Your task to perform on an android device: turn off picture-in-picture Image 0: 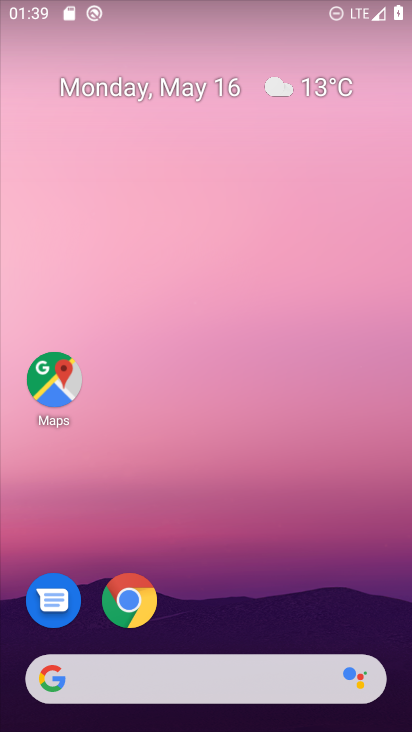
Step 0: press home button
Your task to perform on an android device: turn off picture-in-picture Image 1: 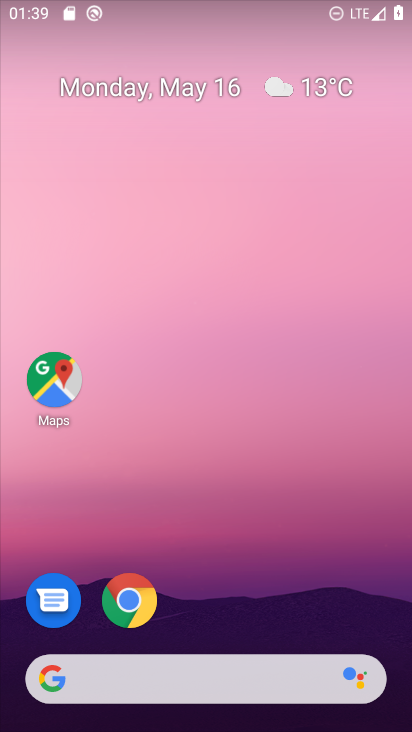
Step 1: click (127, 603)
Your task to perform on an android device: turn off picture-in-picture Image 2: 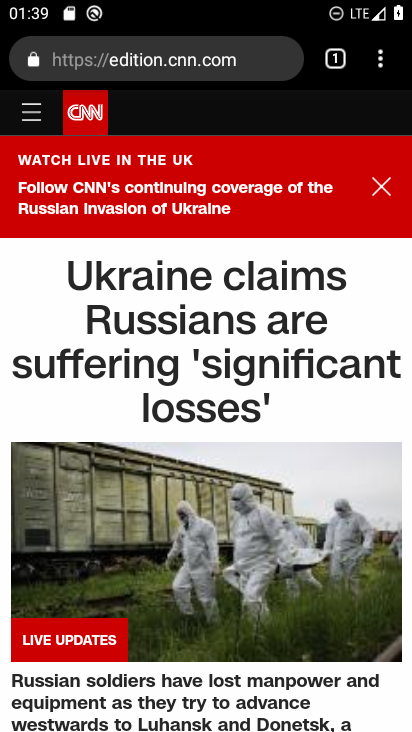
Step 2: press home button
Your task to perform on an android device: turn off picture-in-picture Image 3: 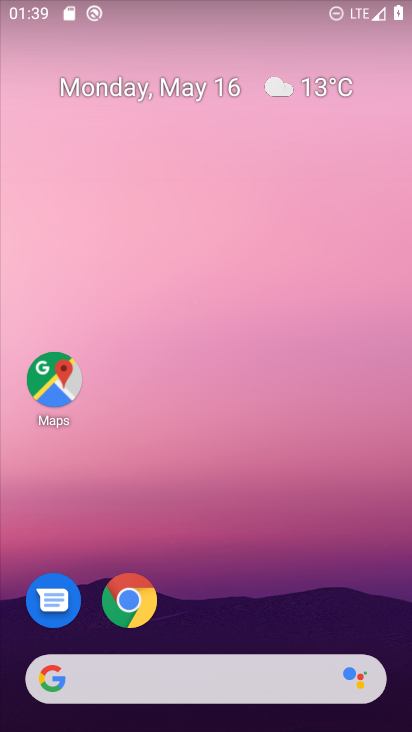
Step 3: click (126, 595)
Your task to perform on an android device: turn off picture-in-picture Image 4: 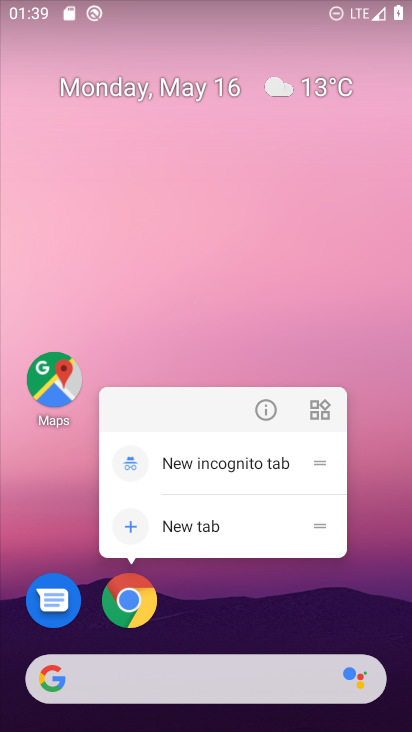
Step 4: click (266, 405)
Your task to perform on an android device: turn off picture-in-picture Image 5: 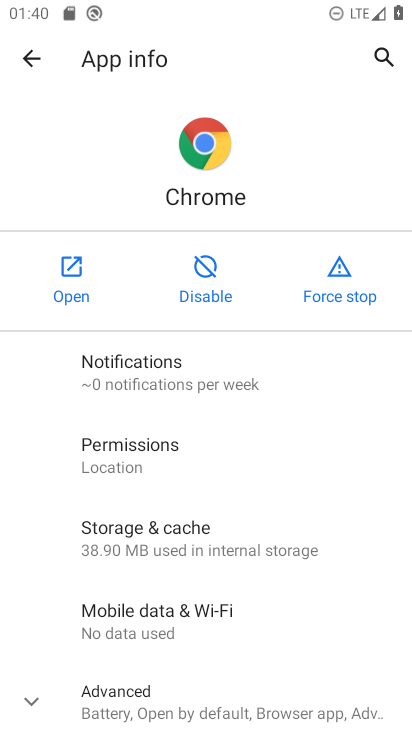
Step 5: click (77, 708)
Your task to perform on an android device: turn off picture-in-picture Image 6: 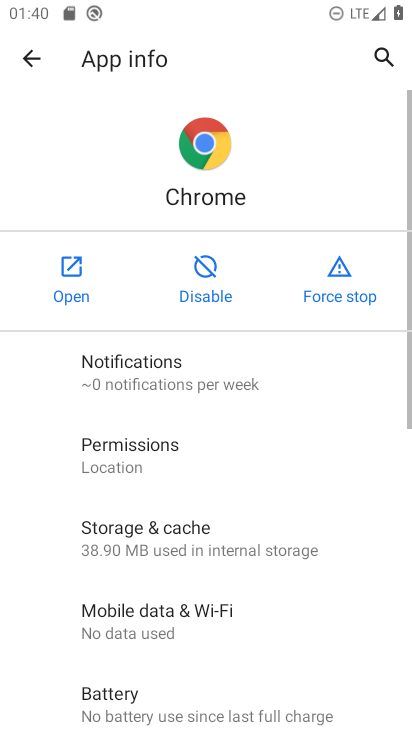
Step 6: drag from (184, 669) to (195, 129)
Your task to perform on an android device: turn off picture-in-picture Image 7: 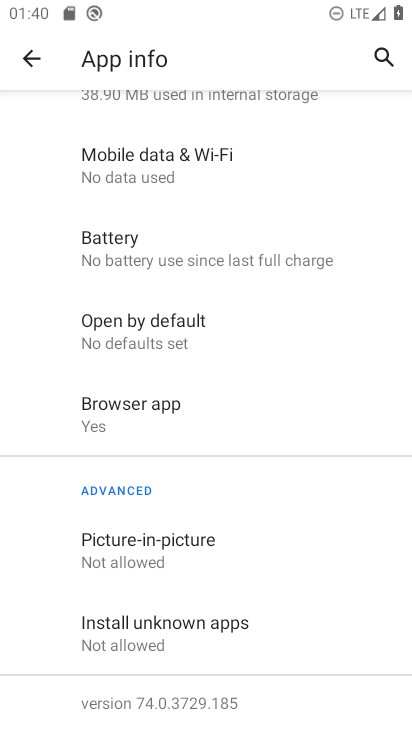
Step 7: click (58, 544)
Your task to perform on an android device: turn off picture-in-picture Image 8: 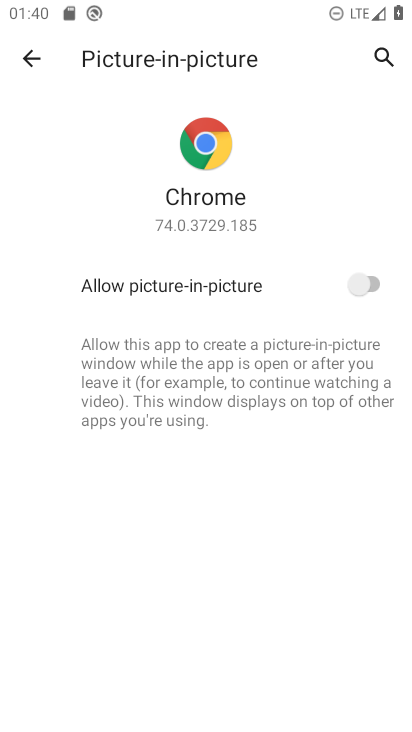
Step 8: task complete